Your task to perform on an android device: Open location settings Image 0: 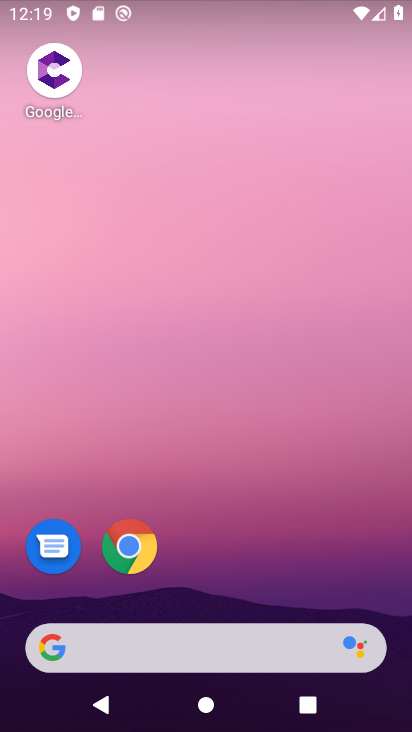
Step 0: drag from (265, 614) to (232, 322)
Your task to perform on an android device: Open location settings Image 1: 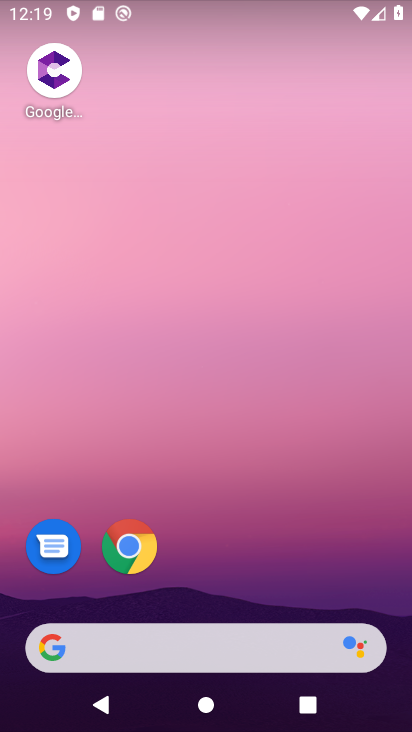
Step 1: drag from (267, 665) to (330, 125)
Your task to perform on an android device: Open location settings Image 2: 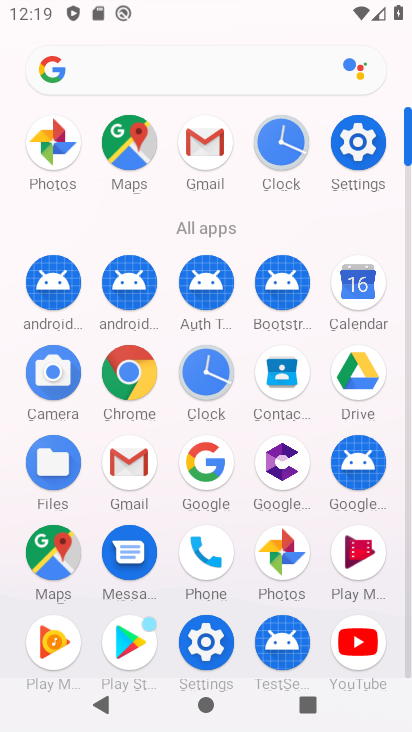
Step 2: click (347, 156)
Your task to perform on an android device: Open location settings Image 3: 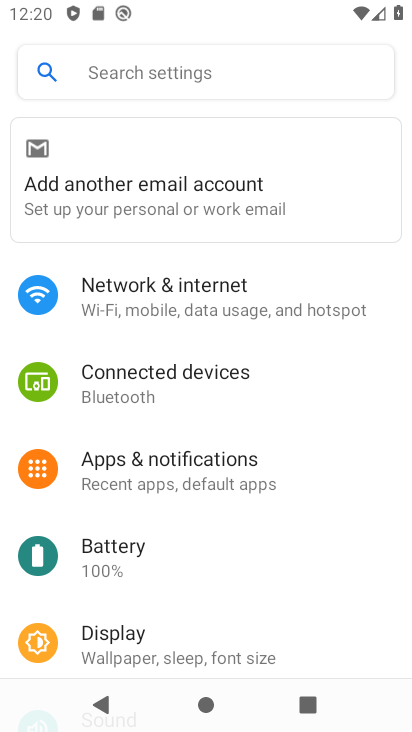
Step 3: click (184, 71)
Your task to perform on an android device: Open location settings Image 4: 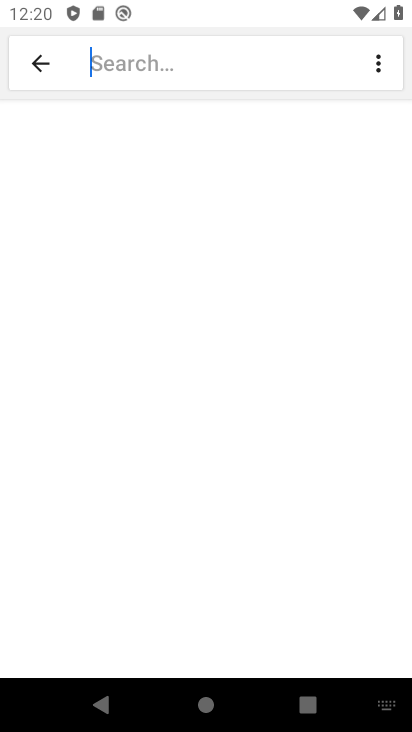
Step 4: click (386, 706)
Your task to perform on an android device: Open location settings Image 5: 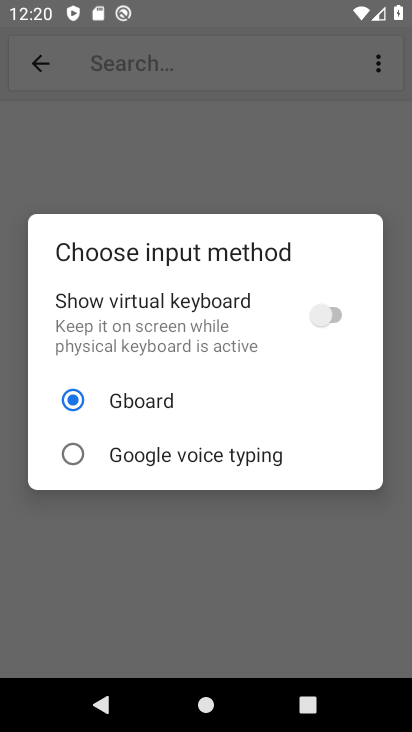
Step 5: click (334, 316)
Your task to perform on an android device: Open location settings Image 6: 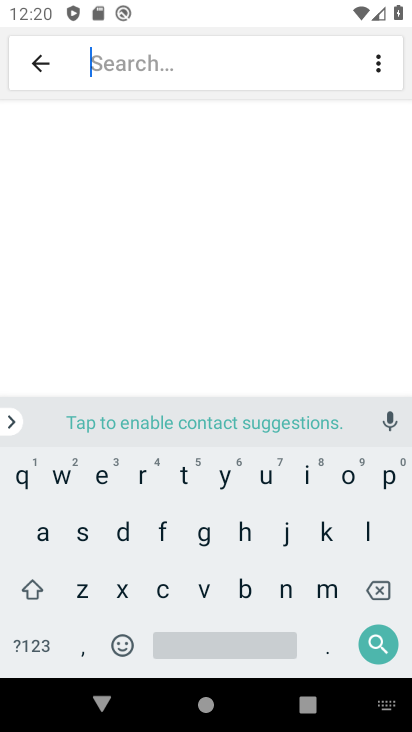
Step 6: click (369, 523)
Your task to perform on an android device: Open location settings Image 7: 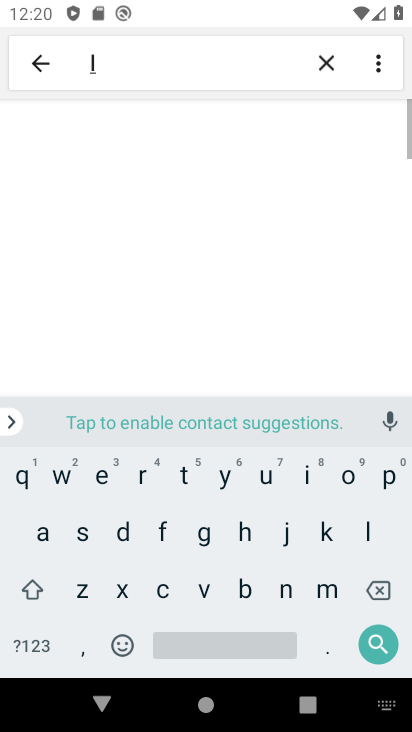
Step 7: click (348, 476)
Your task to perform on an android device: Open location settings Image 8: 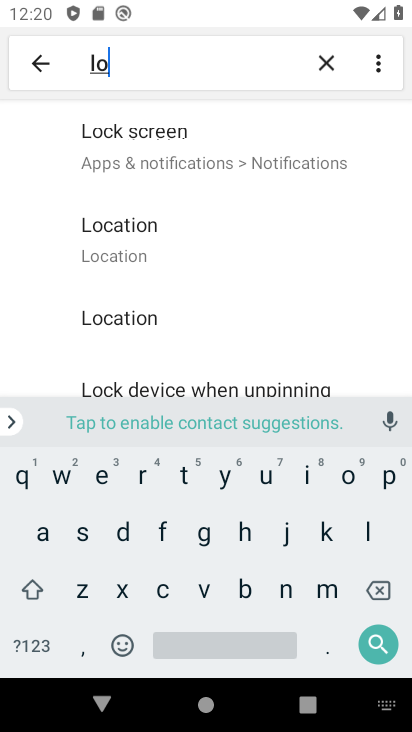
Step 8: click (150, 235)
Your task to perform on an android device: Open location settings Image 9: 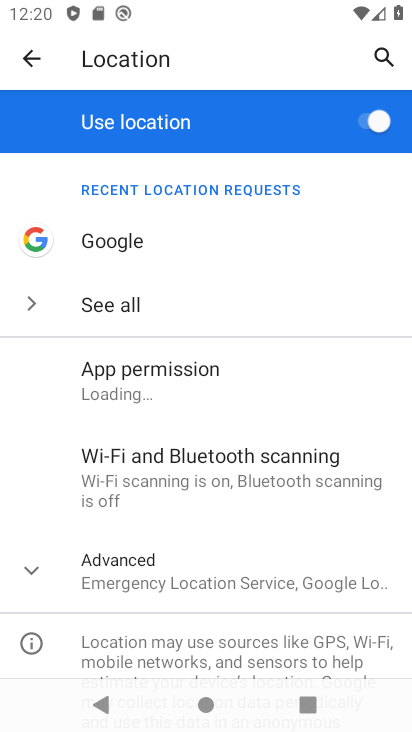
Step 9: task complete